Your task to perform on an android device: change keyboard looks Image 0: 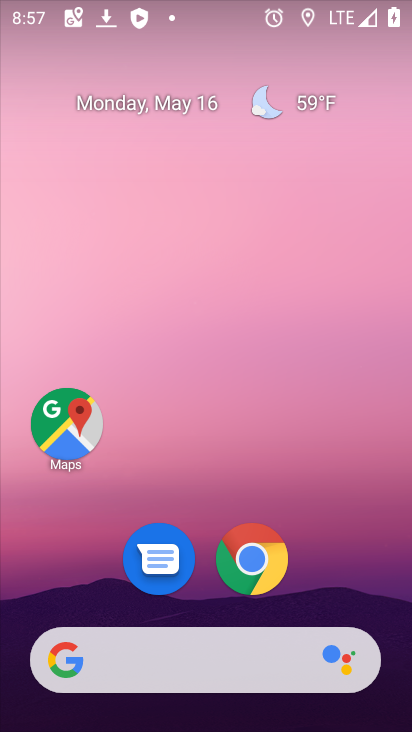
Step 0: drag from (316, 563) to (312, 186)
Your task to perform on an android device: change keyboard looks Image 1: 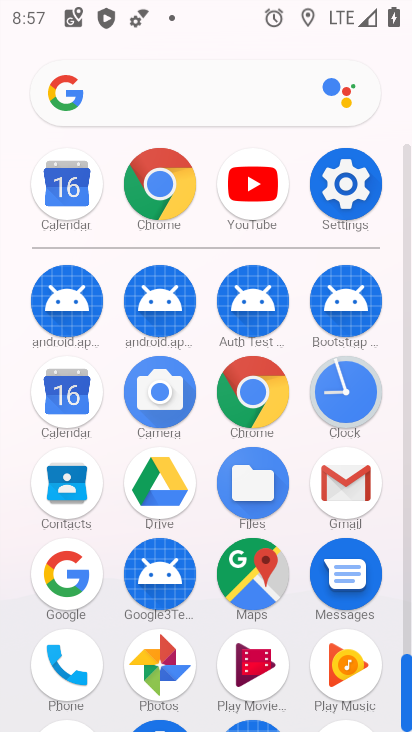
Step 1: click (364, 174)
Your task to perform on an android device: change keyboard looks Image 2: 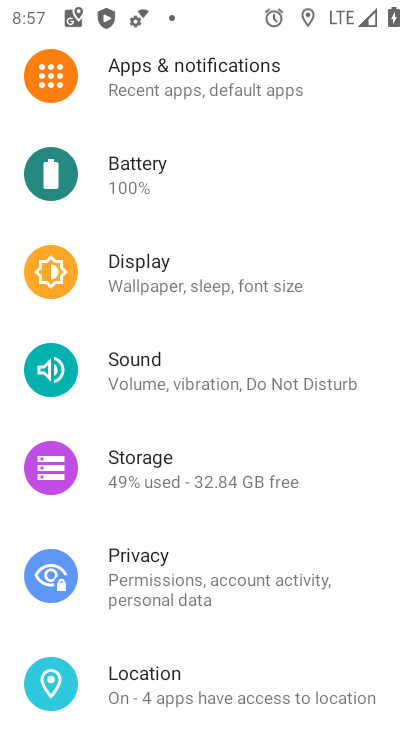
Step 2: drag from (219, 629) to (259, 264)
Your task to perform on an android device: change keyboard looks Image 3: 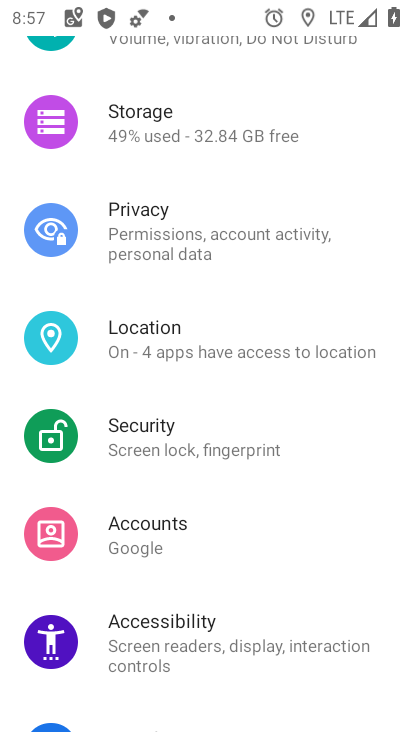
Step 3: drag from (223, 638) to (320, 185)
Your task to perform on an android device: change keyboard looks Image 4: 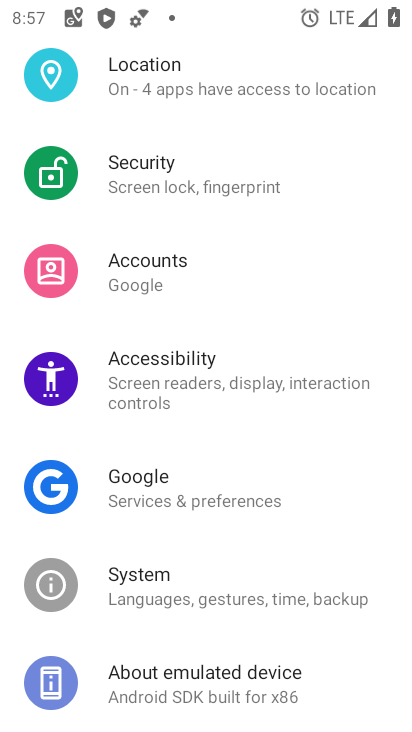
Step 4: click (227, 606)
Your task to perform on an android device: change keyboard looks Image 5: 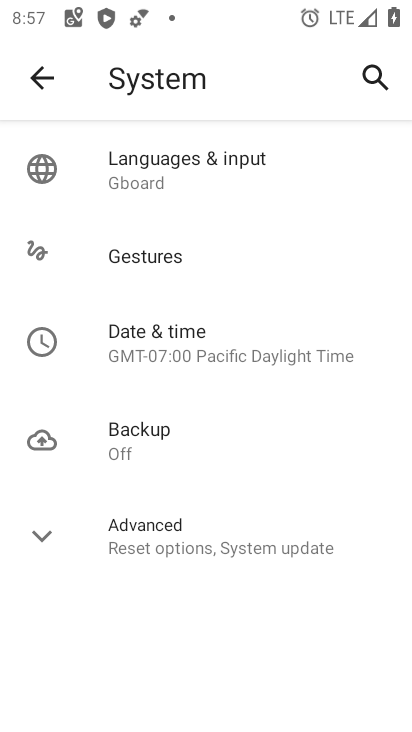
Step 5: click (190, 169)
Your task to perform on an android device: change keyboard looks Image 6: 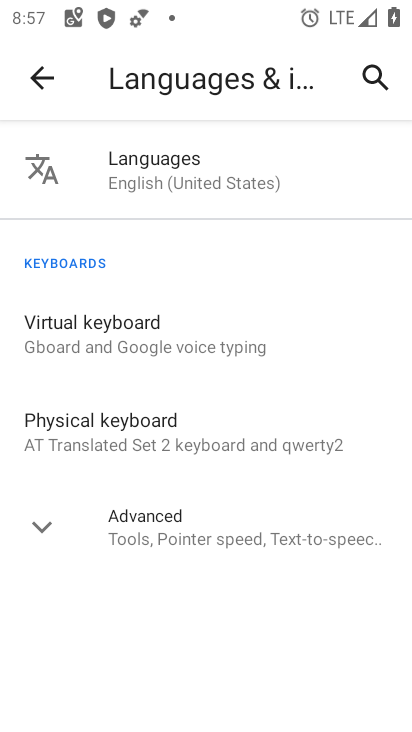
Step 6: click (163, 364)
Your task to perform on an android device: change keyboard looks Image 7: 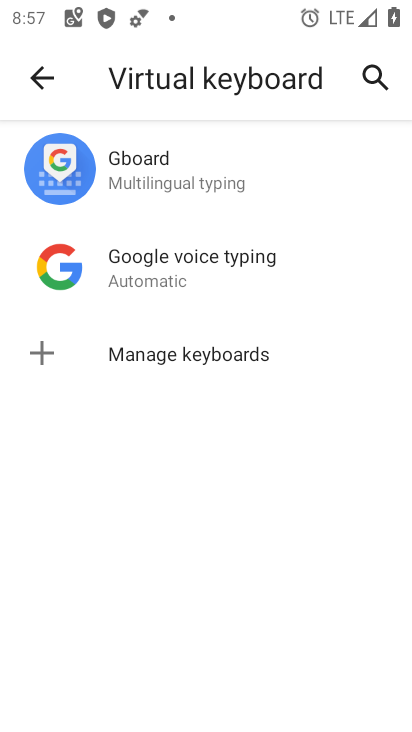
Step 7: click (156, 191)
Your task to perform on an android device: change keyboard looks Image 8: 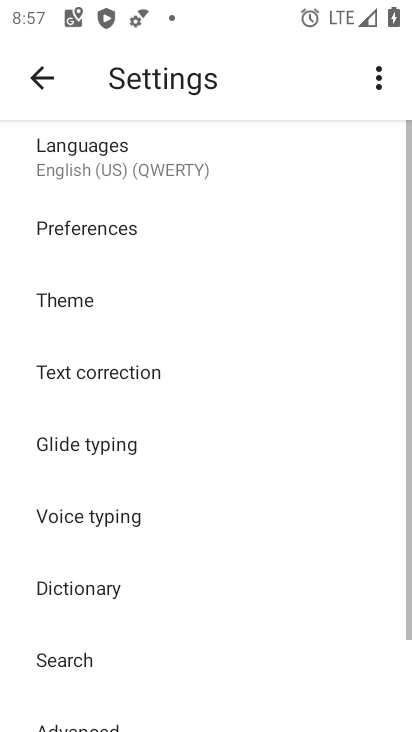
Step 8: click (114, 303)
Your task to perform on an android device: change keyboard looks Image 9: 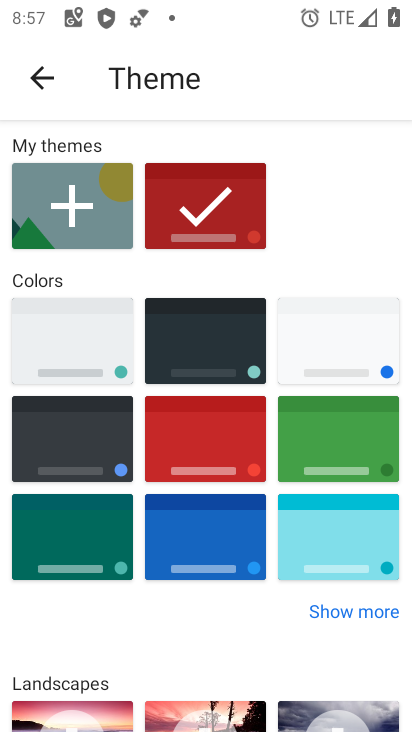
Step 9: click (97, 420)
Your task to perform on an android device: change keyboard looks Image 10: 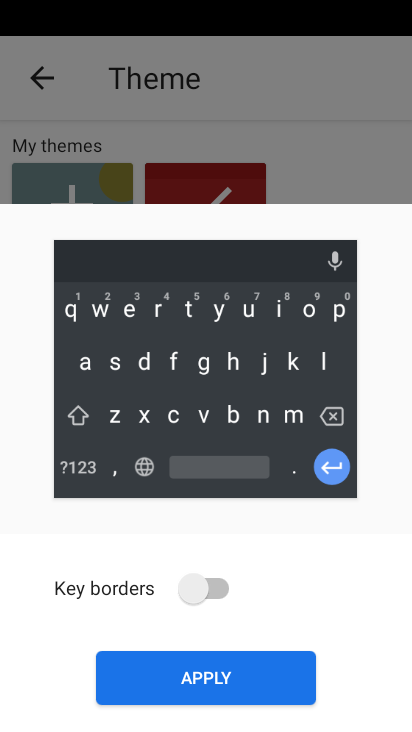
Step 10: click (250, 682)
Your task to perform on an android device: change keyboard looks Image 11: 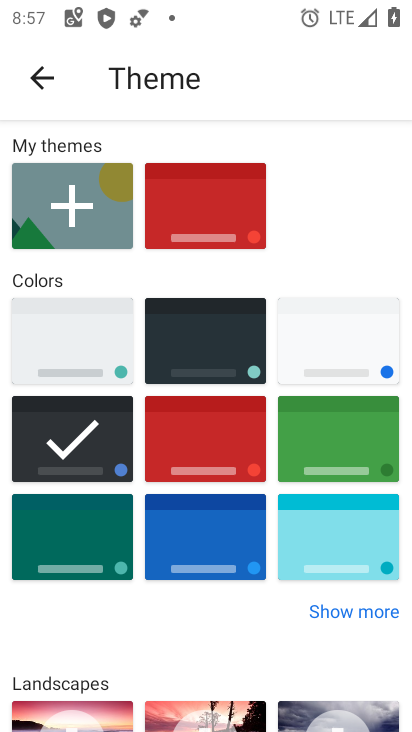
Step 11: task complete